Your task to perform on an android device: Find coffee shops on Maps Image 0: 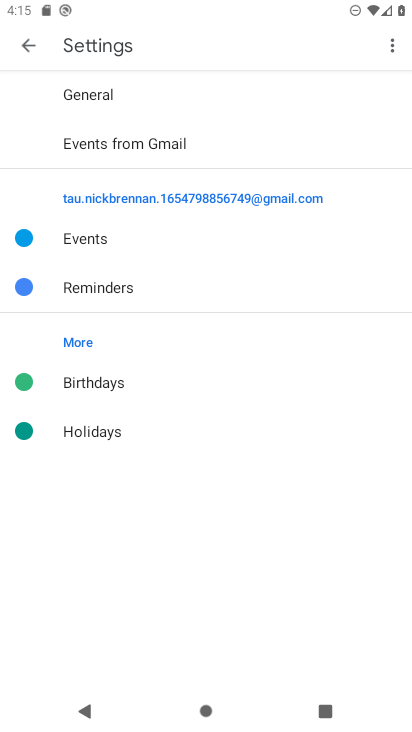
Step 0: press home button
Your task to perform on an android device: Find coffee shops on Maps Image 1: 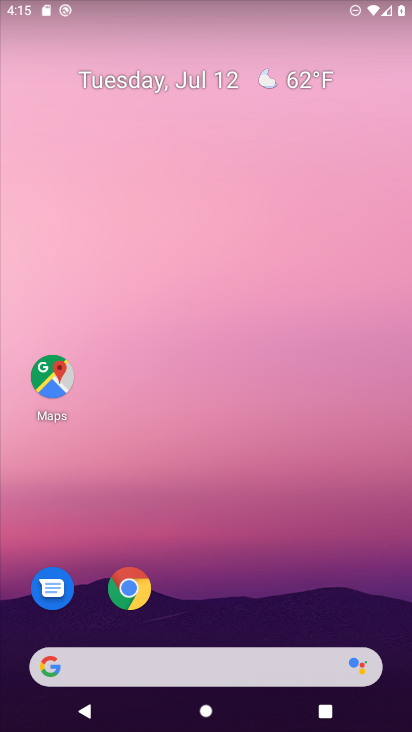
Step 1: click (48, 391)
Your task to perform on an android device: Find coffee shops on Maps Image 2: 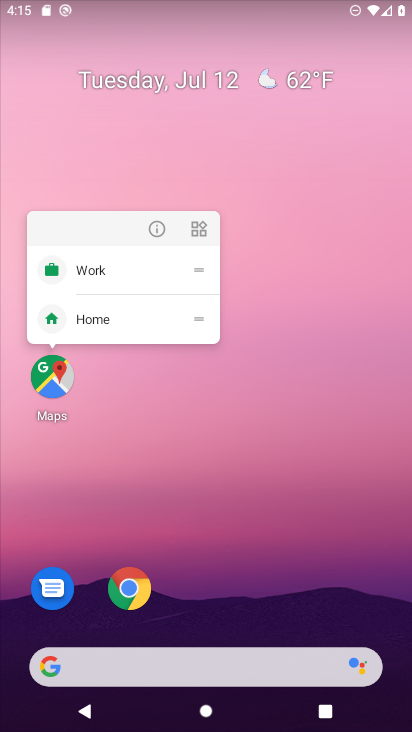
Step 2: click (66, 377)
Your task to perform on an android device: Find coffee shops on Maps Image 3: 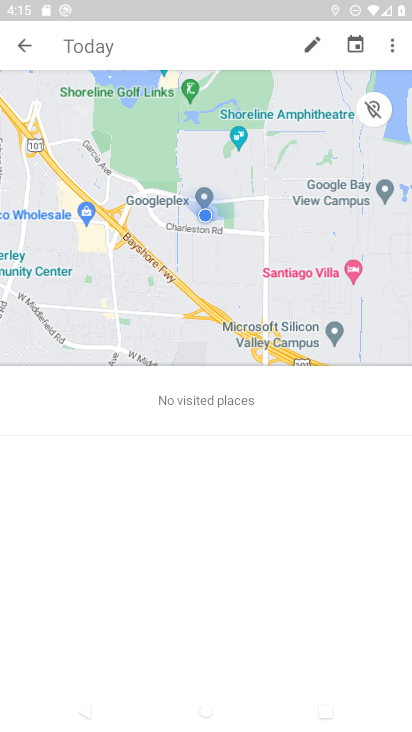
Step 3: click (21, 35)
Your task to perform on an android device: Find coffee shops on Maps Image 4: 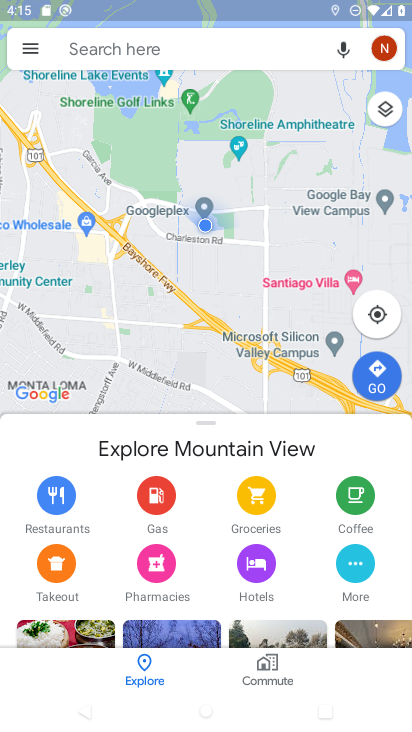
Step 4: click (162, 51)
Your task to perform on an android device: Find coffee shops on Maps Image 5: 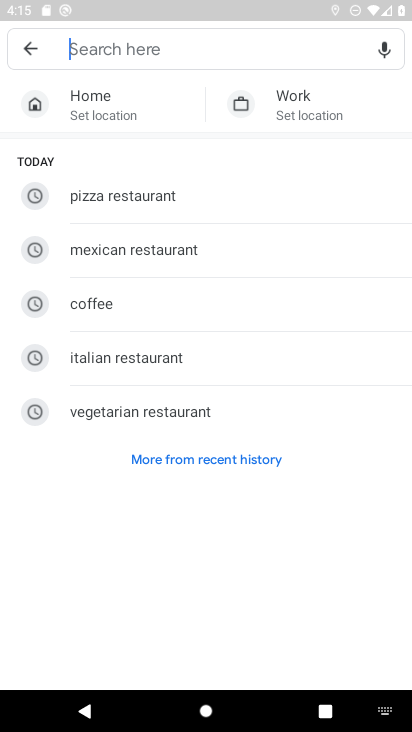
Step 5: type "coffee shops"
Your task to perform on an android device: Find coffee shops on Maps Image 6: 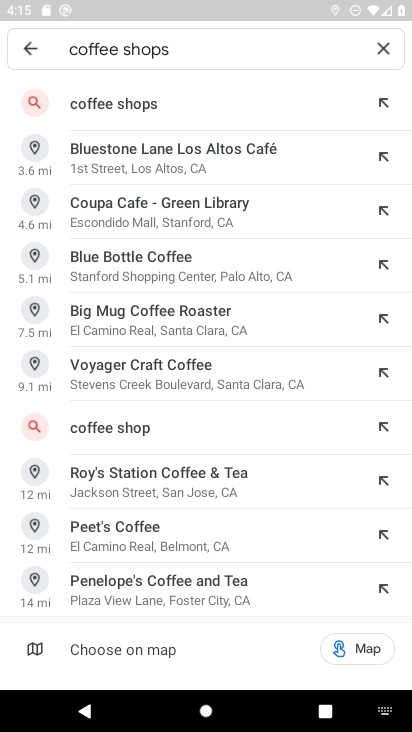
Step 6: click (162, 91)
Your task to perform on an android device: Find coffee shops on Maps Image 7: 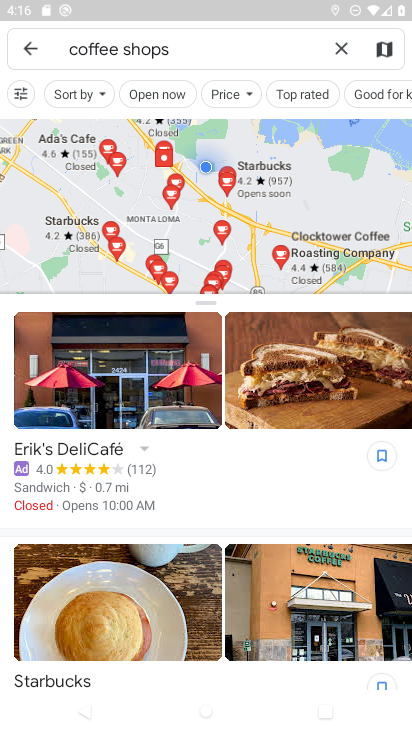
Step 7: task complete